Your task to perform on an android device: Show me recent news Image 0: 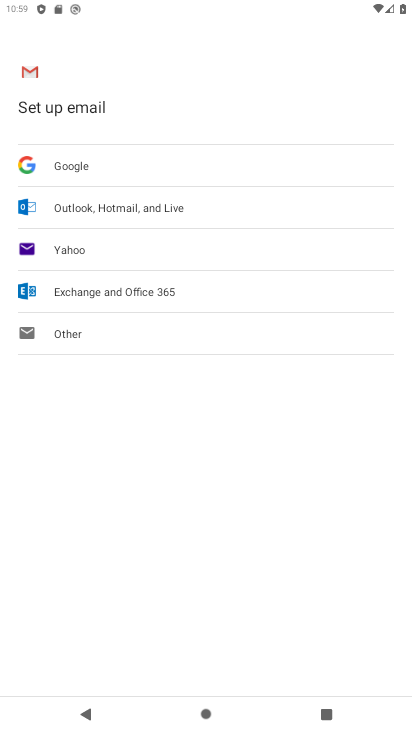
Step 0: press back button
Your task to perform on an android device: Show me recent news Image 1: 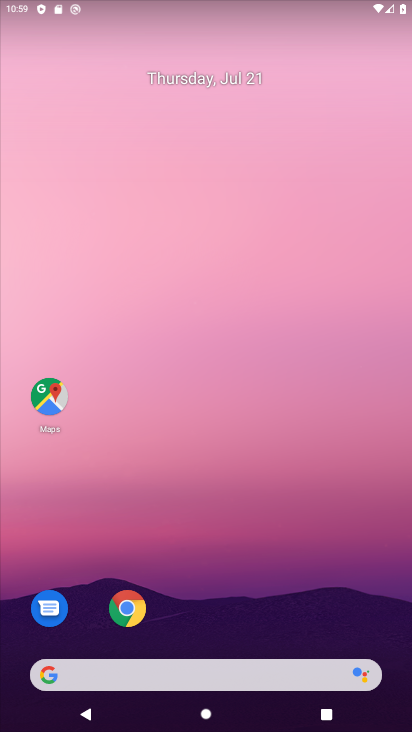
Step 1: drag from (257, 611) to (171, 152)
Your task to perform on an android device: Show me recent news Image 2: 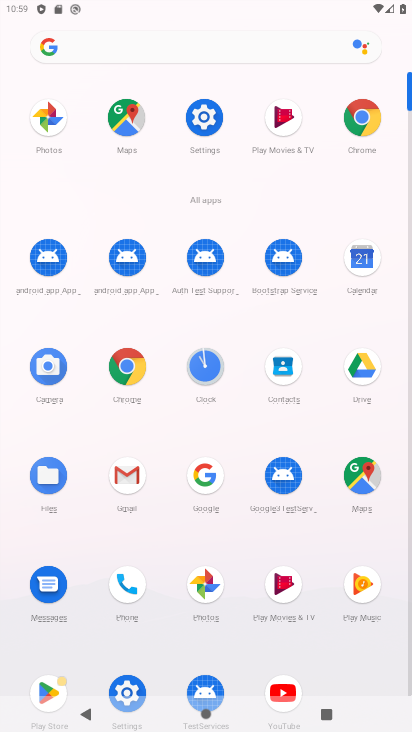
Step 2: drag from (205, 477) to (55, 236)
Your task to perform on an android device: Show me recent news Image 3: 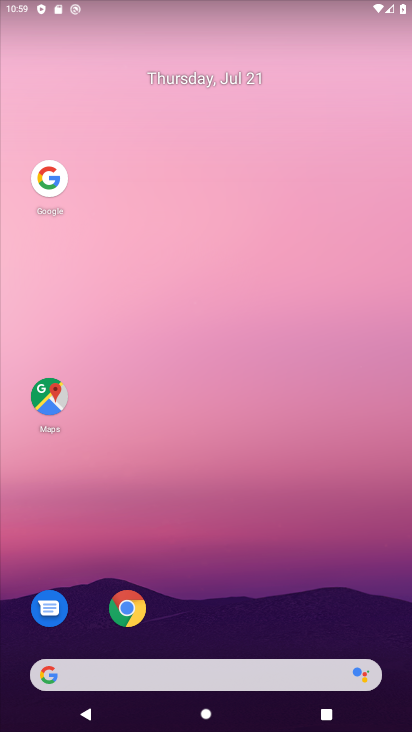
Step 3: click (61, 192)
Your task to perform on an android device: Show me recent news Image 4: 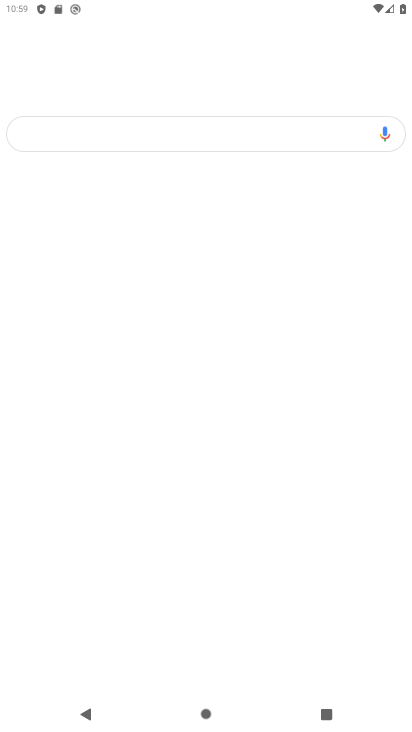
Step 4: click (59, 188)
Your task to perform on an android device: Show me recent news Image 5: 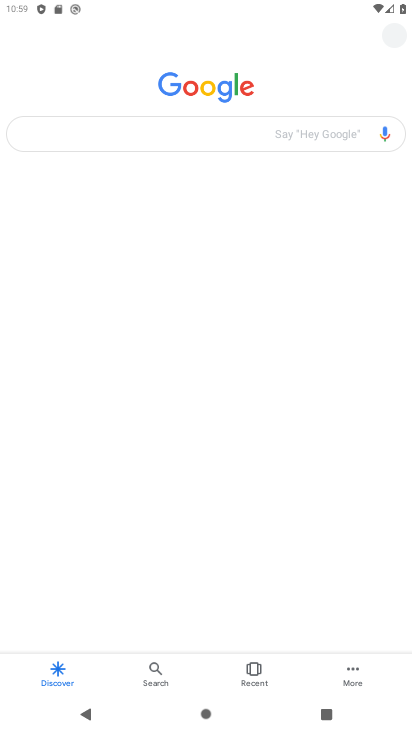
Step 5: click (75, 146)
Your task to perform on an android device: Show me recent news Image 6: 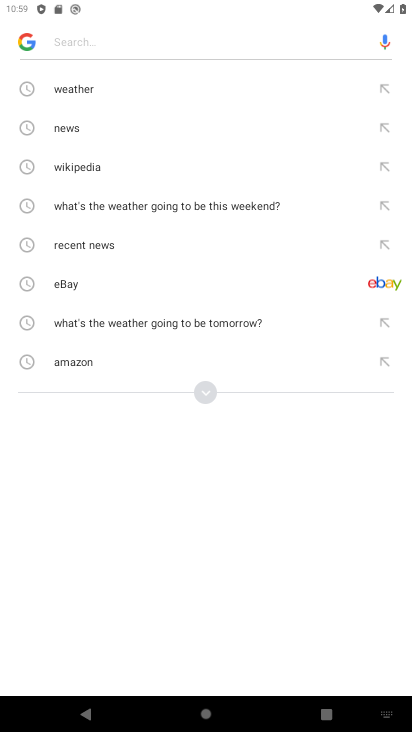
Step 6: click (173, 245)
Your task to perform on an android device: Show me recent news Image 7: 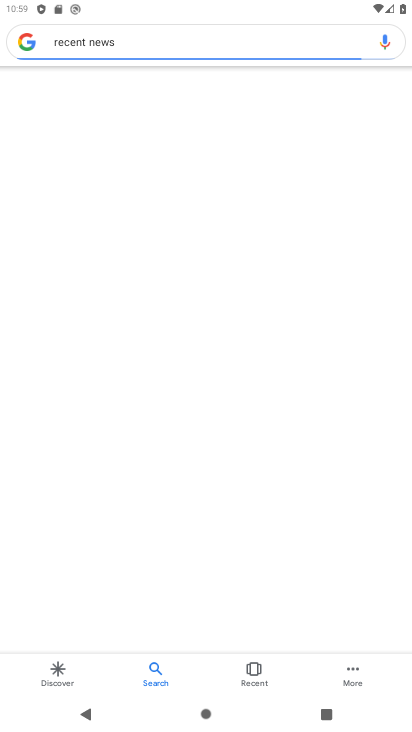
Step 7: task complete